Your task to perform on an android device: turn on the 12-hour format for clock Image 0: 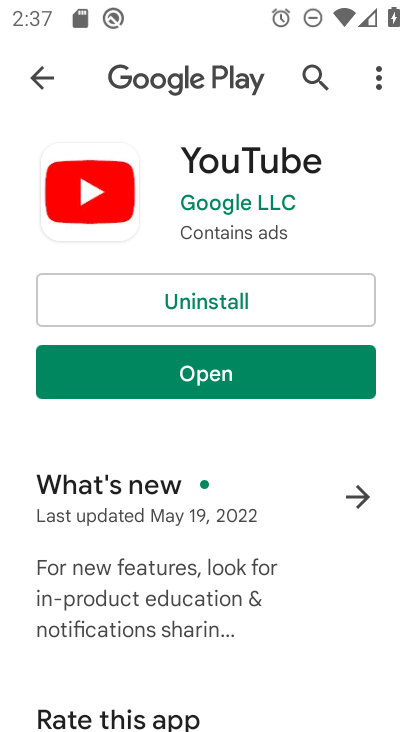
Step 0: press home button
Your task to perform on an android device: turn on the 12-hour format for clock Image 1: 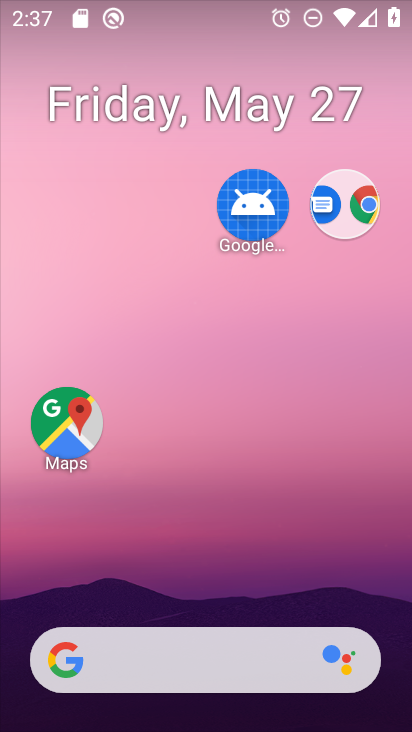
Step 1: drag from (179, 611) to (194, 215)
Your task to perform on an android device: turn on the 12-hour format for clock Image 2: 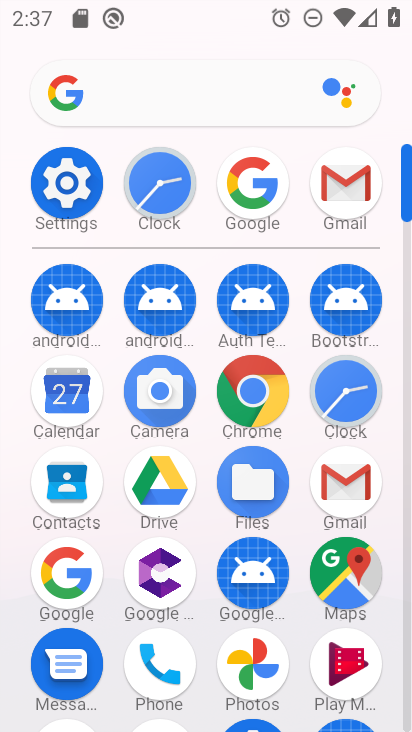
Step 2: click (360, 408)
Your task to perform on an android device: turn on the 12-hour format for clock Image 3: 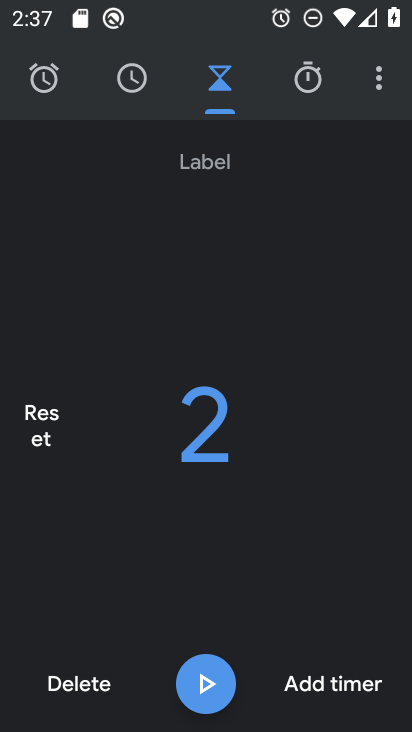
Step 3: click (371, 85)
Your task to perform on an android device: turn on the 12-hour format for clock Image 4: 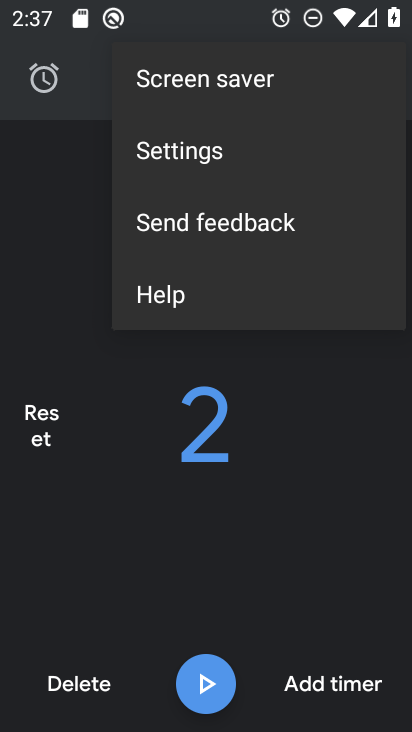
Step 4: click (207, 163)
Your task to perform on an android device: turn on the 12-hour format for clock Image 5: 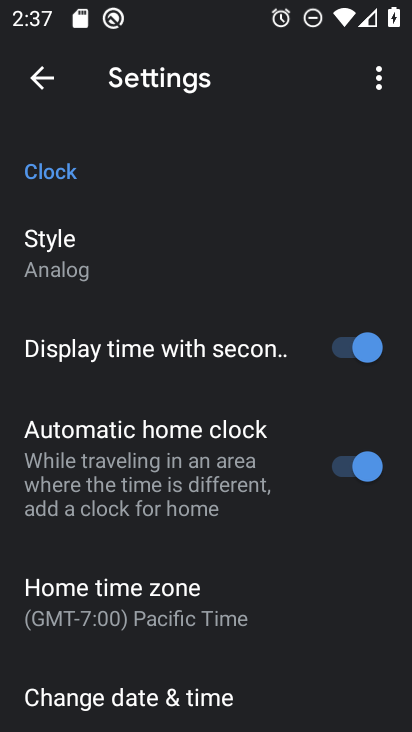
Step 5: click (150, 703)
Your task to perform on an android device: turn on the 12-hour format for clock Image 6: 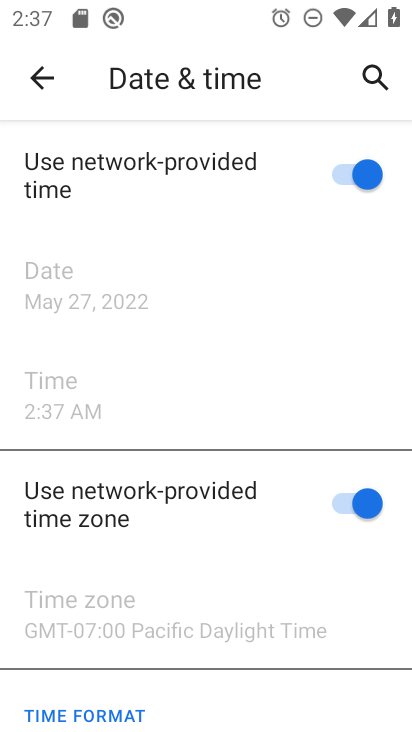
Step 6: task complete